Your task to perform on an android device: Is it going to rain tomorrow? Image 0: 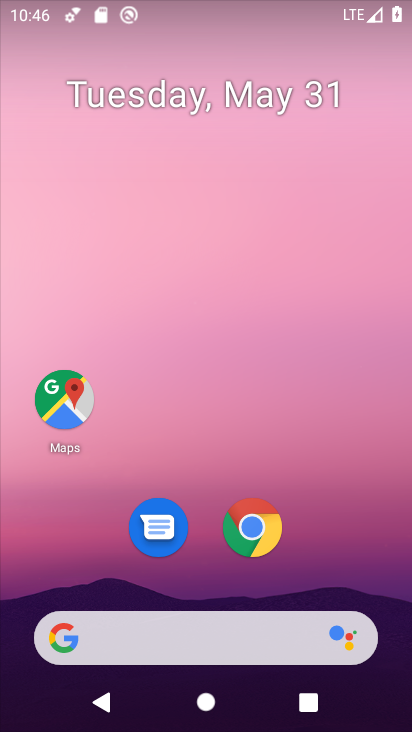
Step 0: click (115, 635)
Your task to perform on an android device: Is it going to rain tomorrow? Image 1: 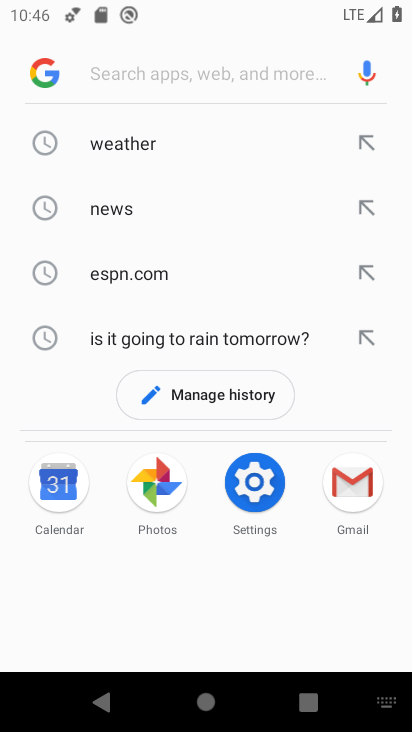
Step 1: click (119, 138)
Your task to perform on an android device: Is it going to rain tomorrow? Image 2: 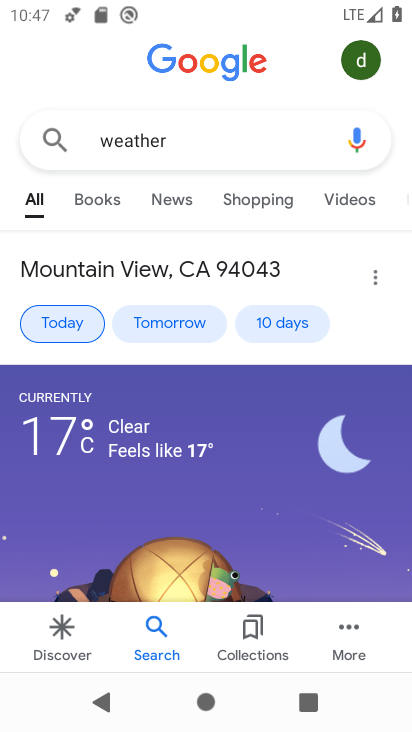
Step 2: click (163, 331)
Your task to perform on an android device: Is it going to rain tomorrow? Image 3: 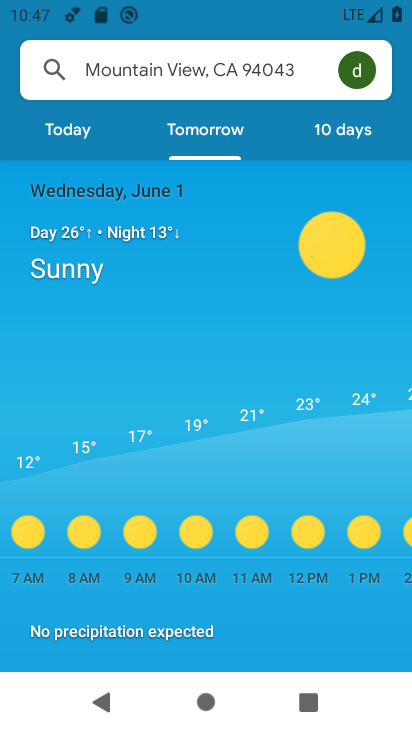
Step 3: task complete